Your task to perform on an android device: Toggle the flashlight Image 0: 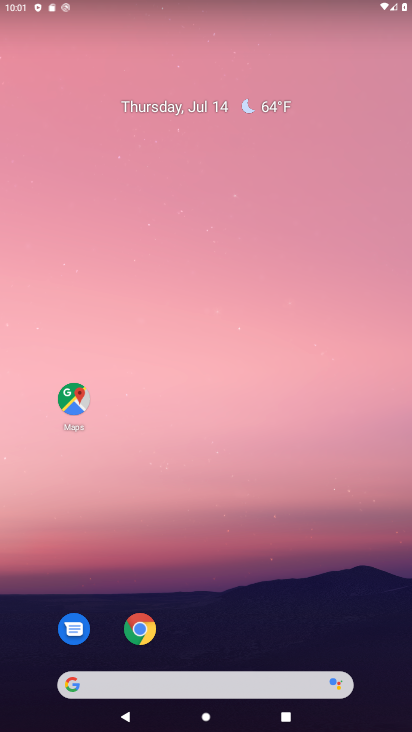
Step 0: drag from (261, 5) to (222, 640)
Your task to perform on an android device: Toggle the flashlight Image 1: 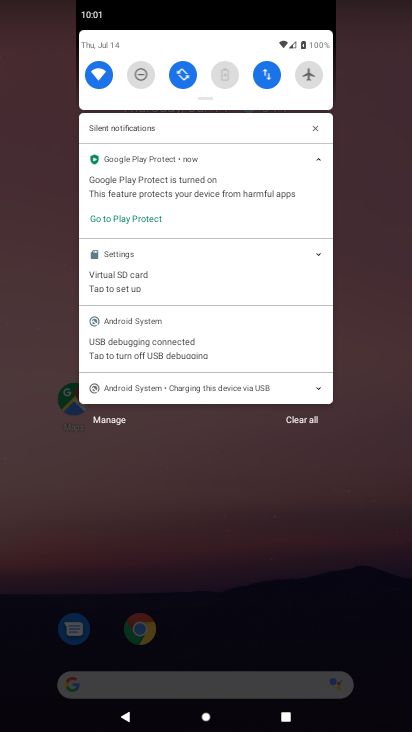
Step 1: task complete